Your task to perform on an android device: find photos in the google photos app Image 0: 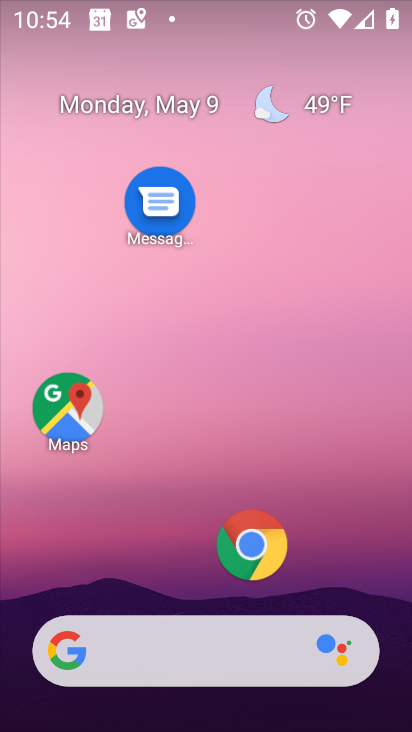
Step 0: drag from (345, 574) to (339, 29)
Your task to perform on an android device: find photos in the google photos app Image 1: 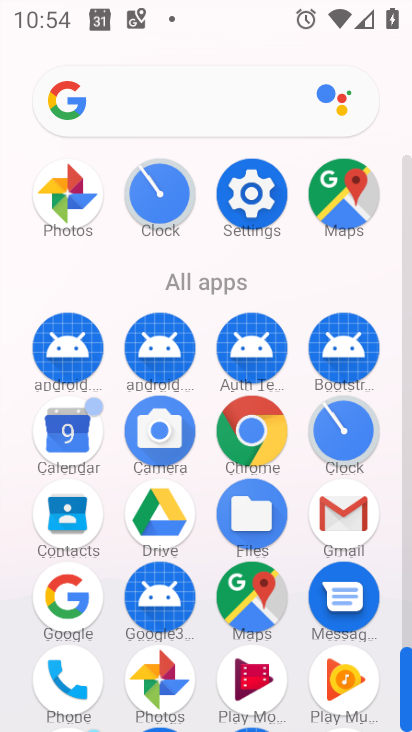
Step 1: click (81, 205)
Your task to perform on an android device: find photos in the google photos app Image 2: 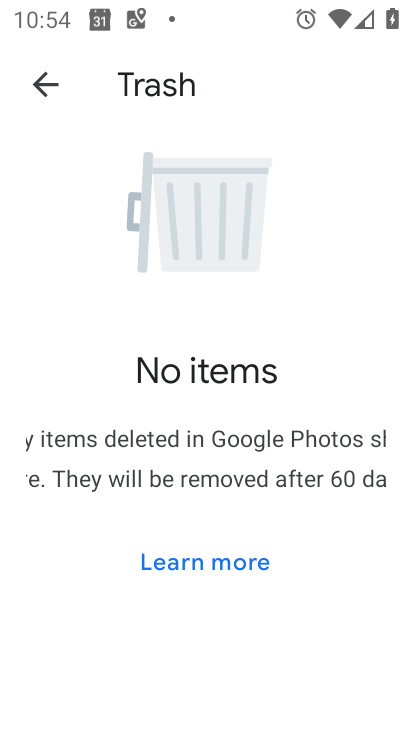
Step 2: click (43, 83)
Your task to perform on an android device: find photos in the google photos app Image 3: 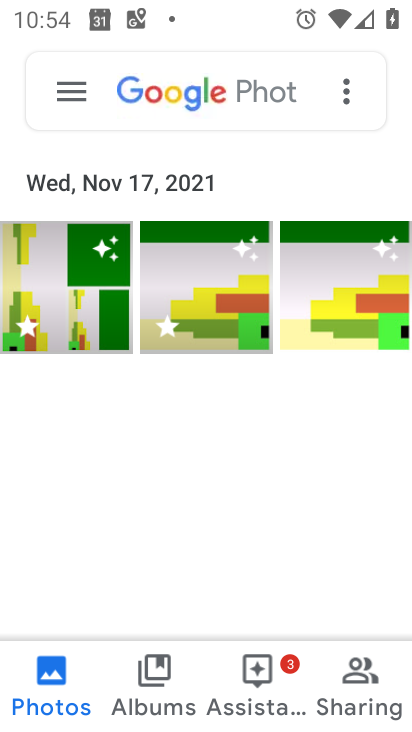
Step 3: task complete